Your task to perform on an android device: Open maps Image 0: 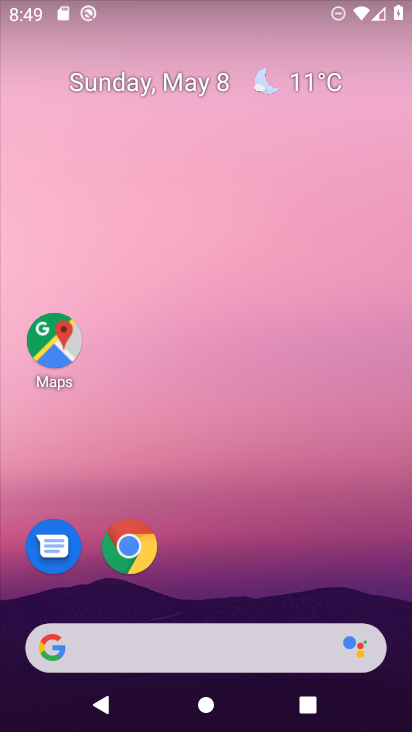
Step 0: click (47, 341)
Your task to perform on an android device: Open maps Image 1: 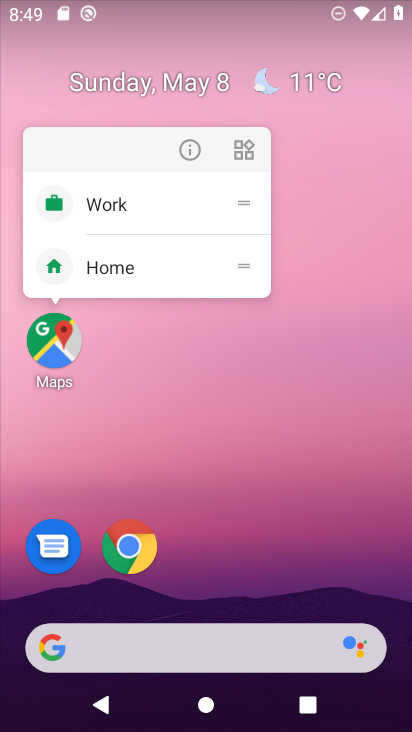
Step 1: click (47, 342)
Your task to perform on an android device: Open maps Image 2: 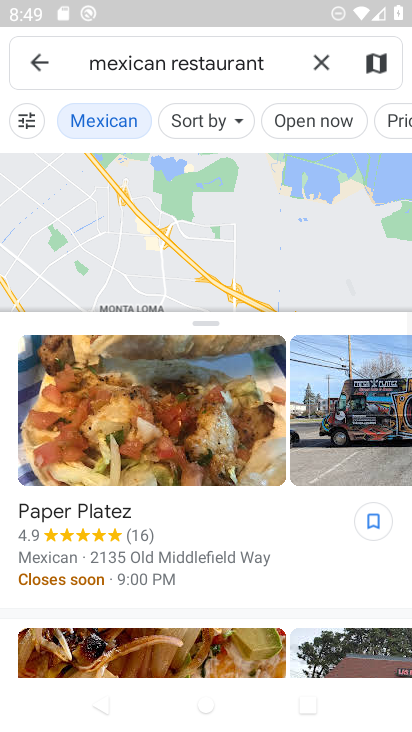
Step 2: click (323, 55)
Your task to perform on an android device: Open maps Image 3: 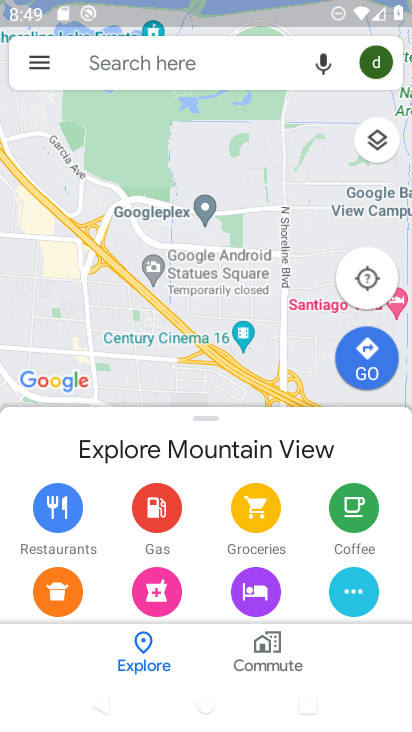
Step 3: task complete